Your task to perform on an android device: see tabs open on other devices in the chrome app Image 0: 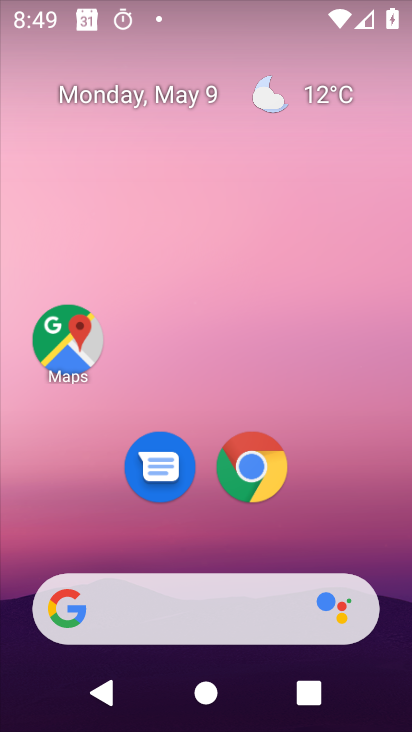
Step 0: click (235, 503)
Your task to perform on an android device: see tabs open on other devices in the chrome app Image 1: 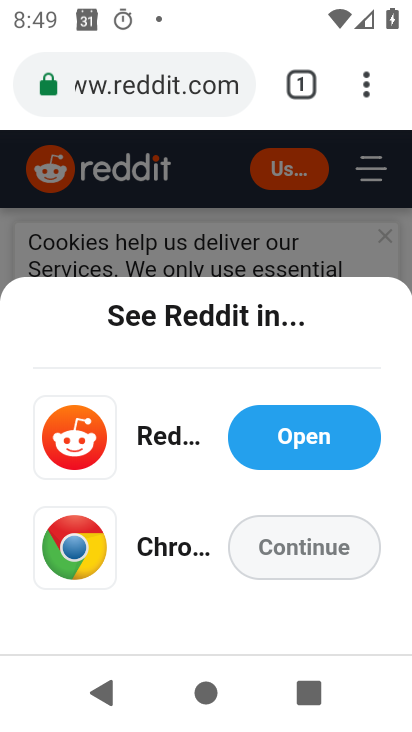
Step 1: click (370, 78)
Your task to perform on an android device: see tabs open on other devices in the chrome app Image 2: 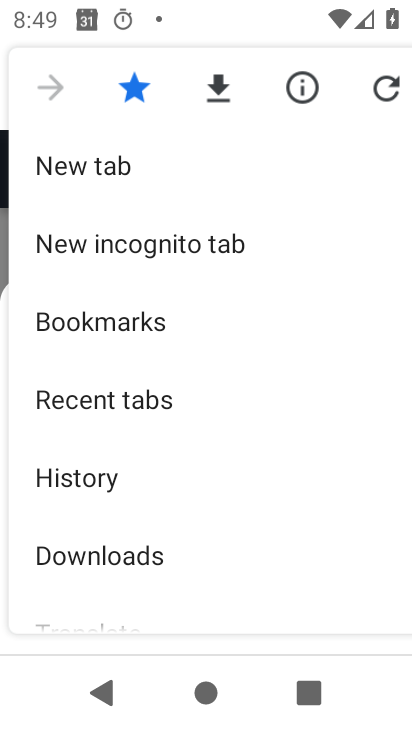
Step 2: click (85, 401)
Your task to perform on an android device: see tabs open on other devices in the chrome app Image 3: 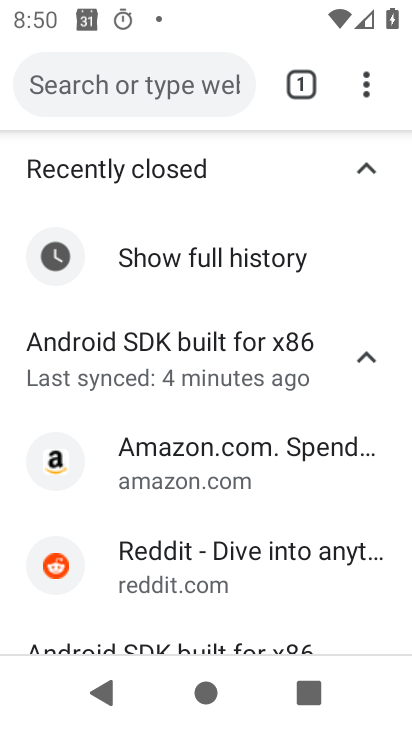
Step 3: task complete